Your task to perform on an android device: What's the latest news in space technology? Image 0: 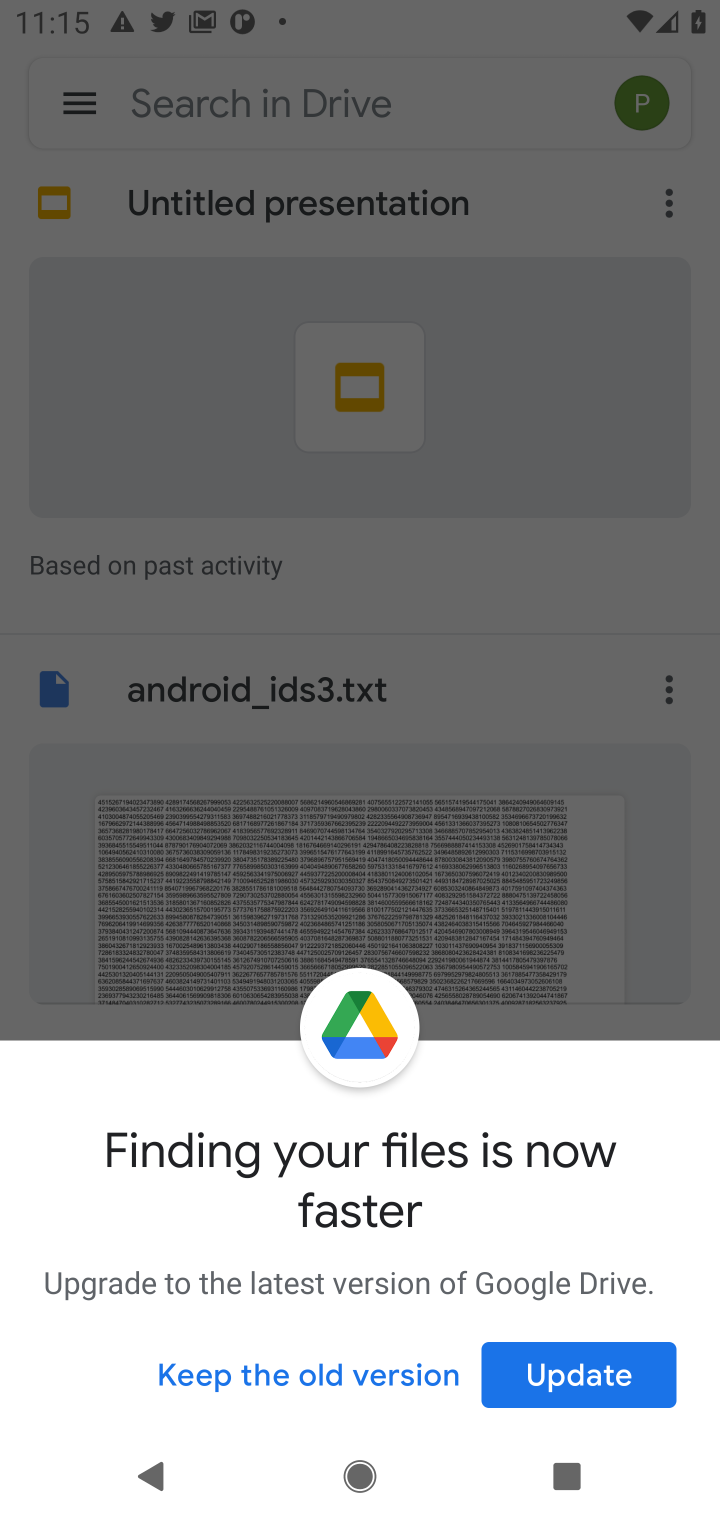
Step 0: press back button
Your task to perform on an android device: What's the latest news in space technology? Image 1: 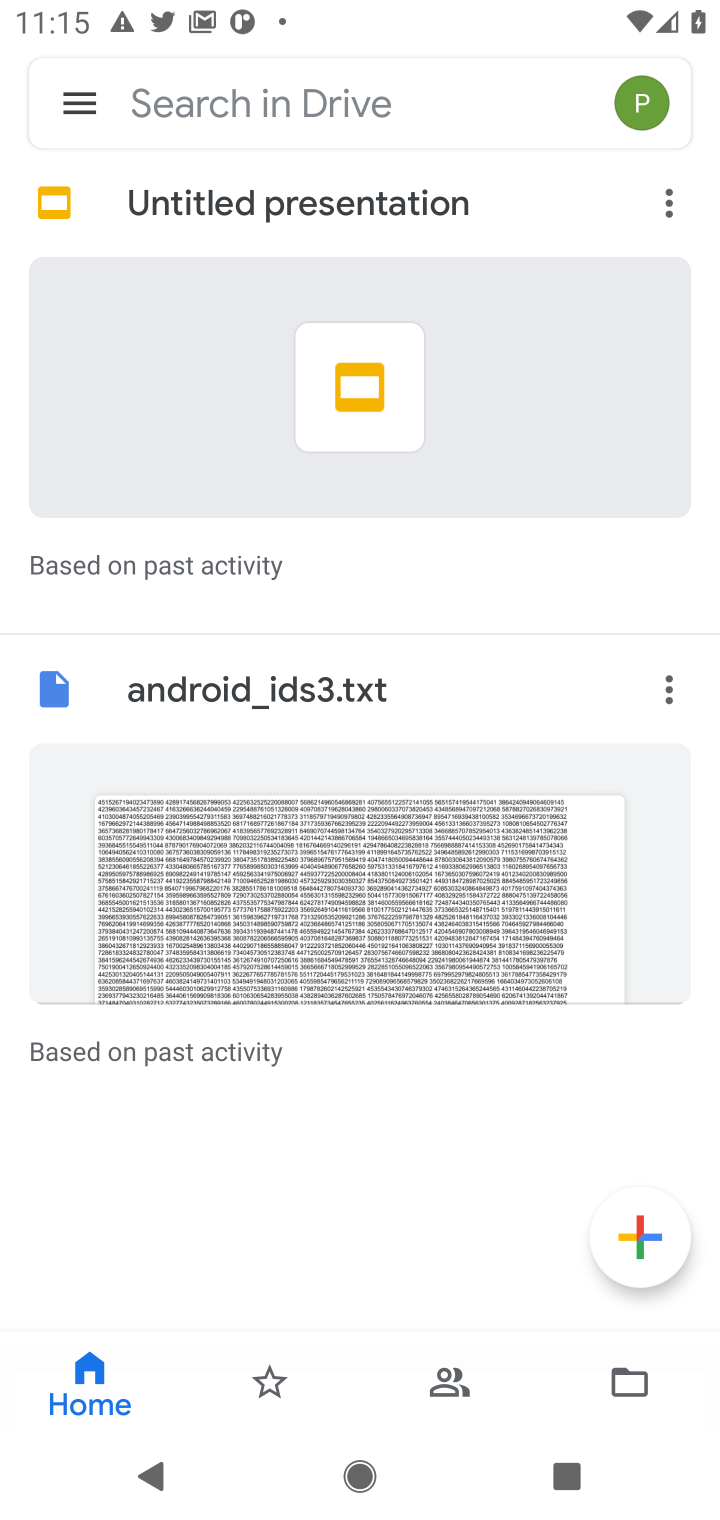
Step 1: press home button
Your task to perform on an android device: What's the latest news in space technology? Image 2: 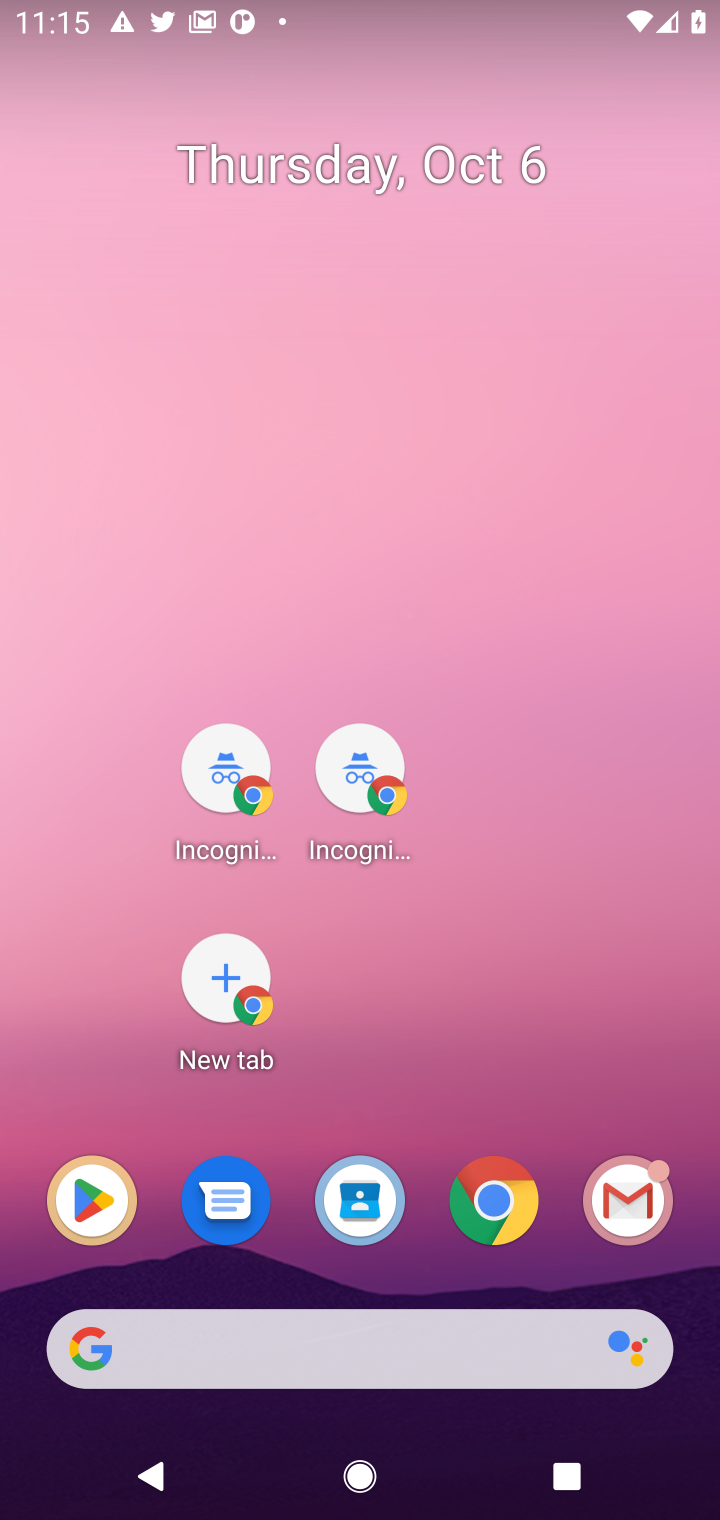
Step 2: click (473, 1206)
Your task to perform on an android device: What's the latest news in space technology? Image 3: 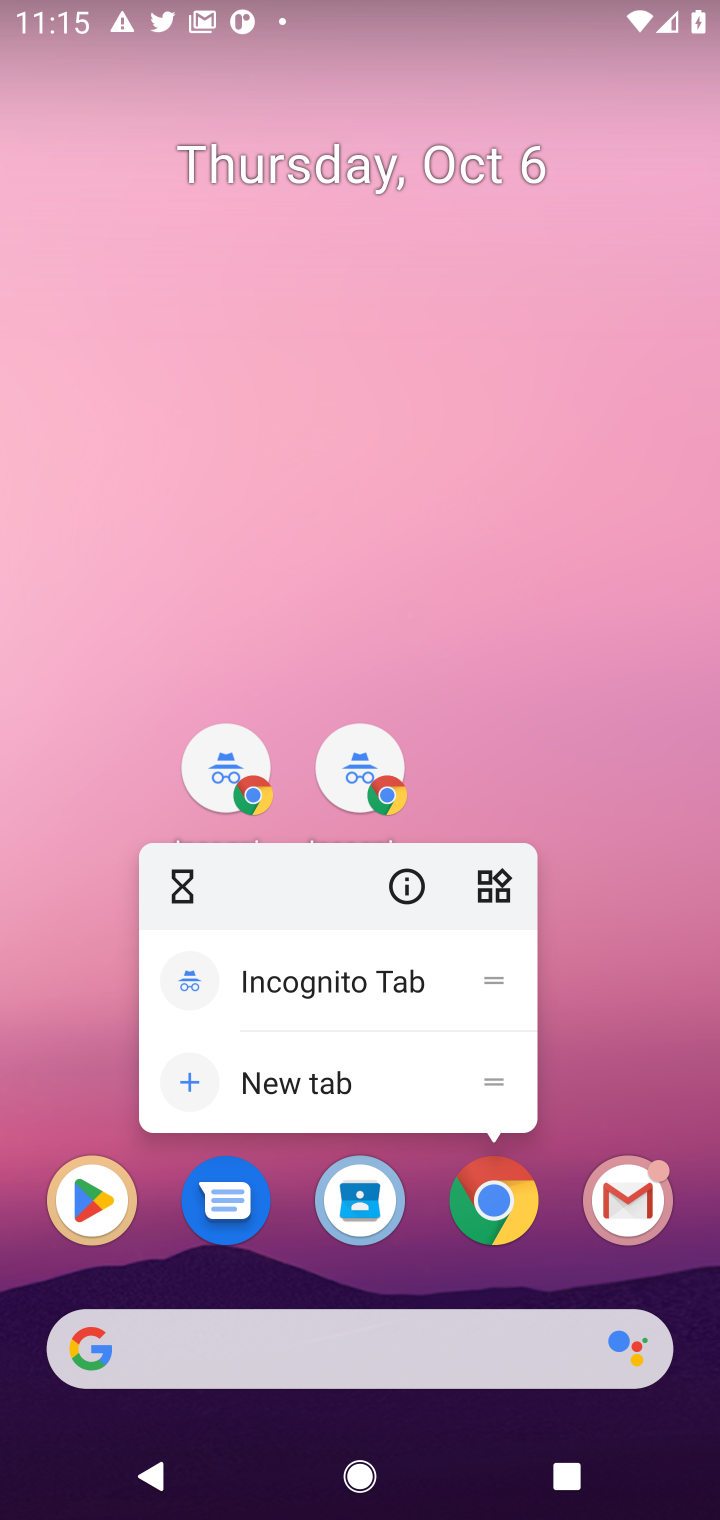
Step 3: press home button
Your task to perform on an android device: What's the latest news in space technology? Image 4: 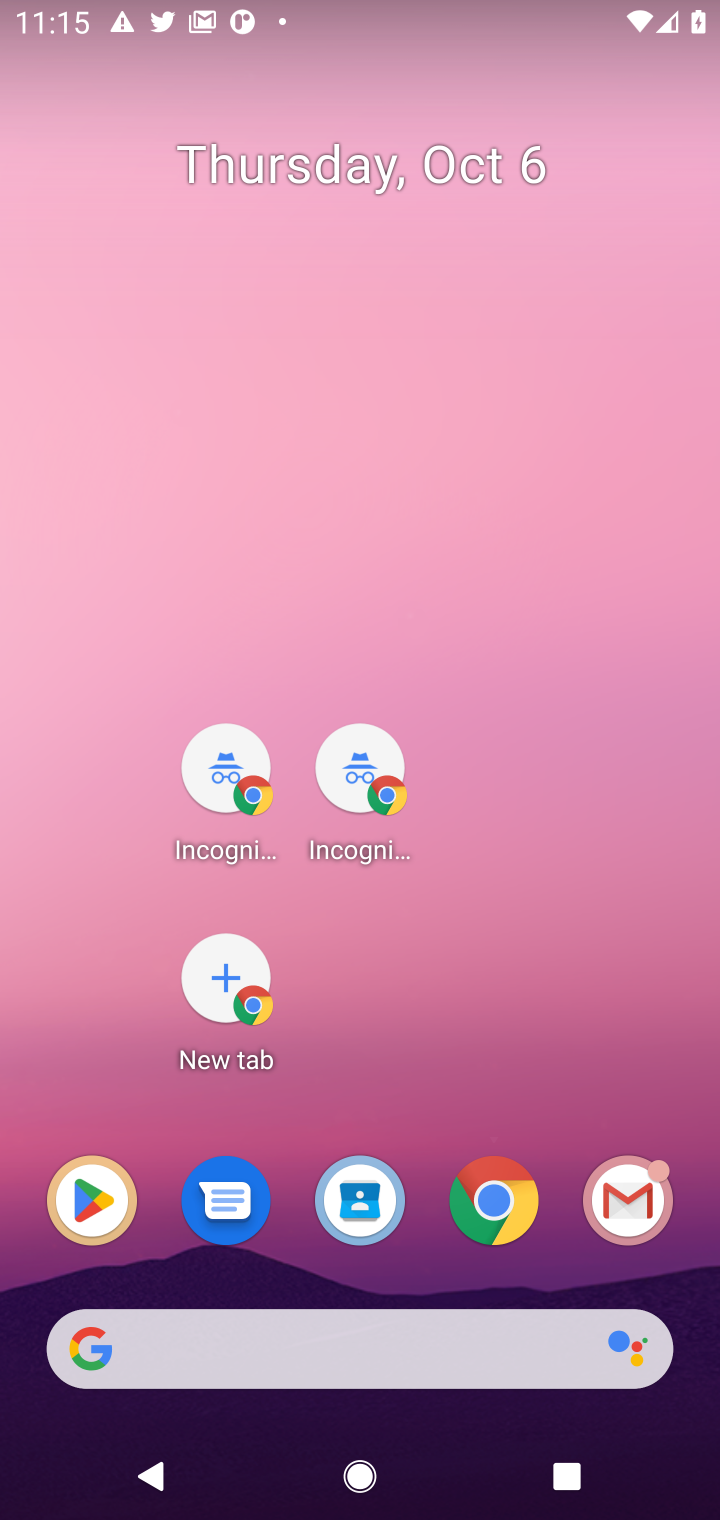
Step 4: press back button
Your task to perform on an android device: What's the latest news in space technology? Image 5: 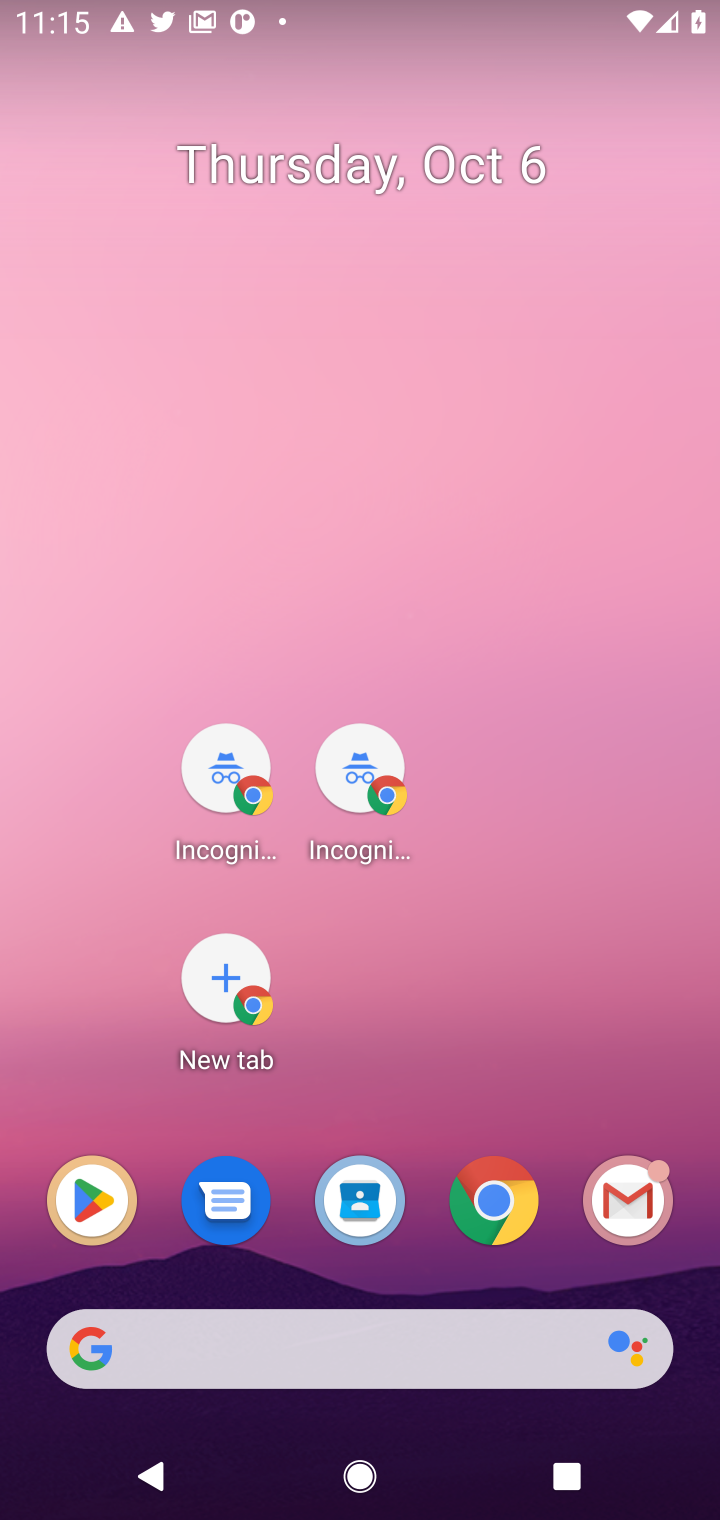
Step 5: press home button
Your task to perform on an android device: What's the latest news in space technology? Image 6: 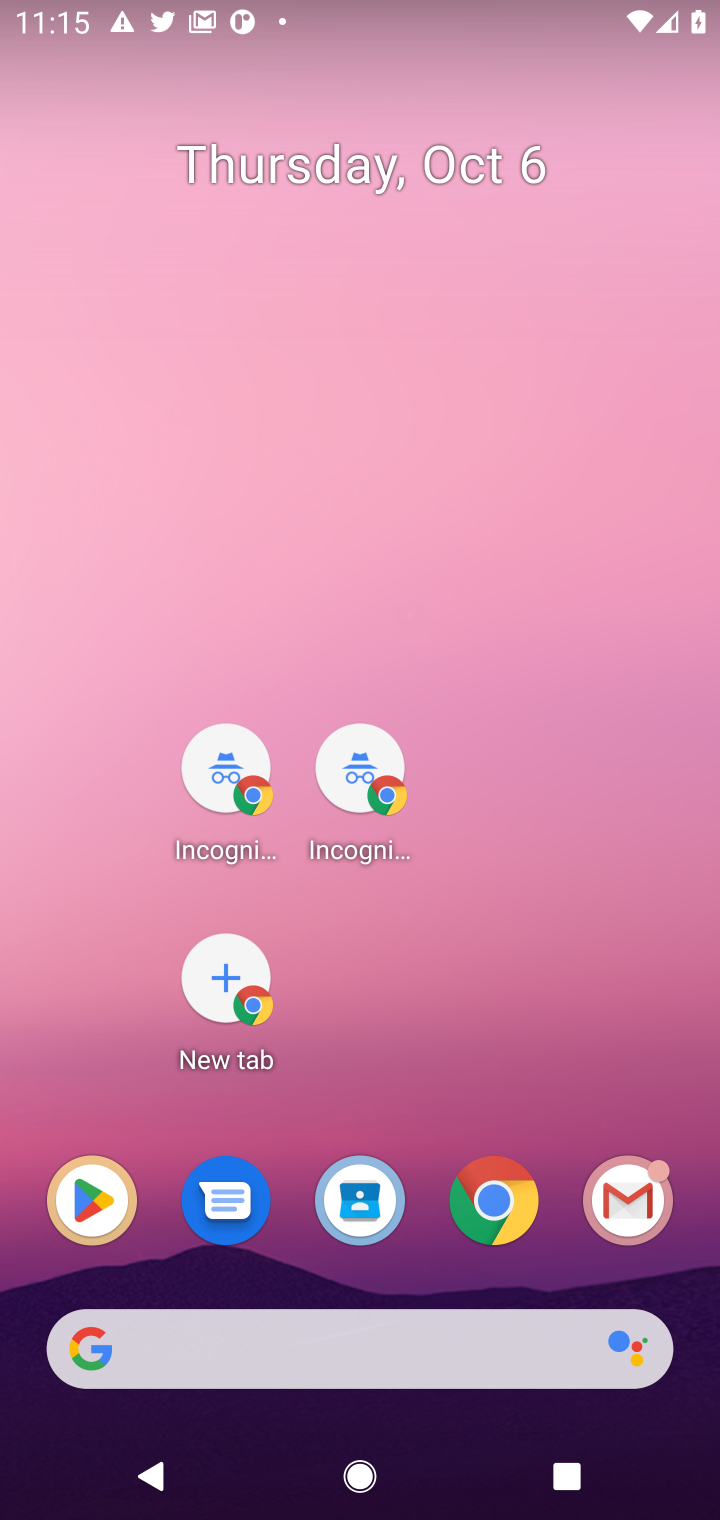
Step 6: click (508, 1221)
Your task to perform on an android device: What's the latest news in space technology? Image 7: 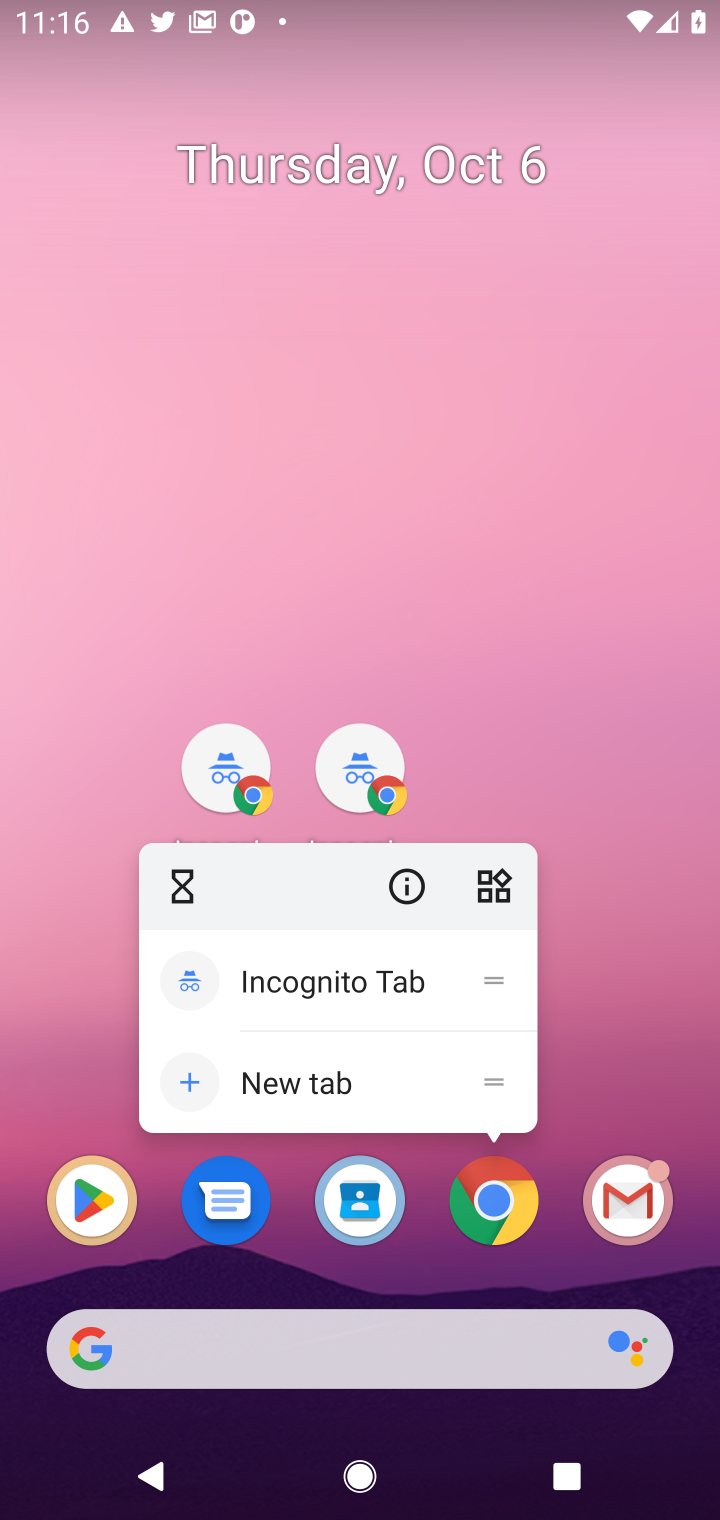
Step 7: click (506, 1215)
Your task to perform on an android device: What's the latest news in space technology? Image 8: 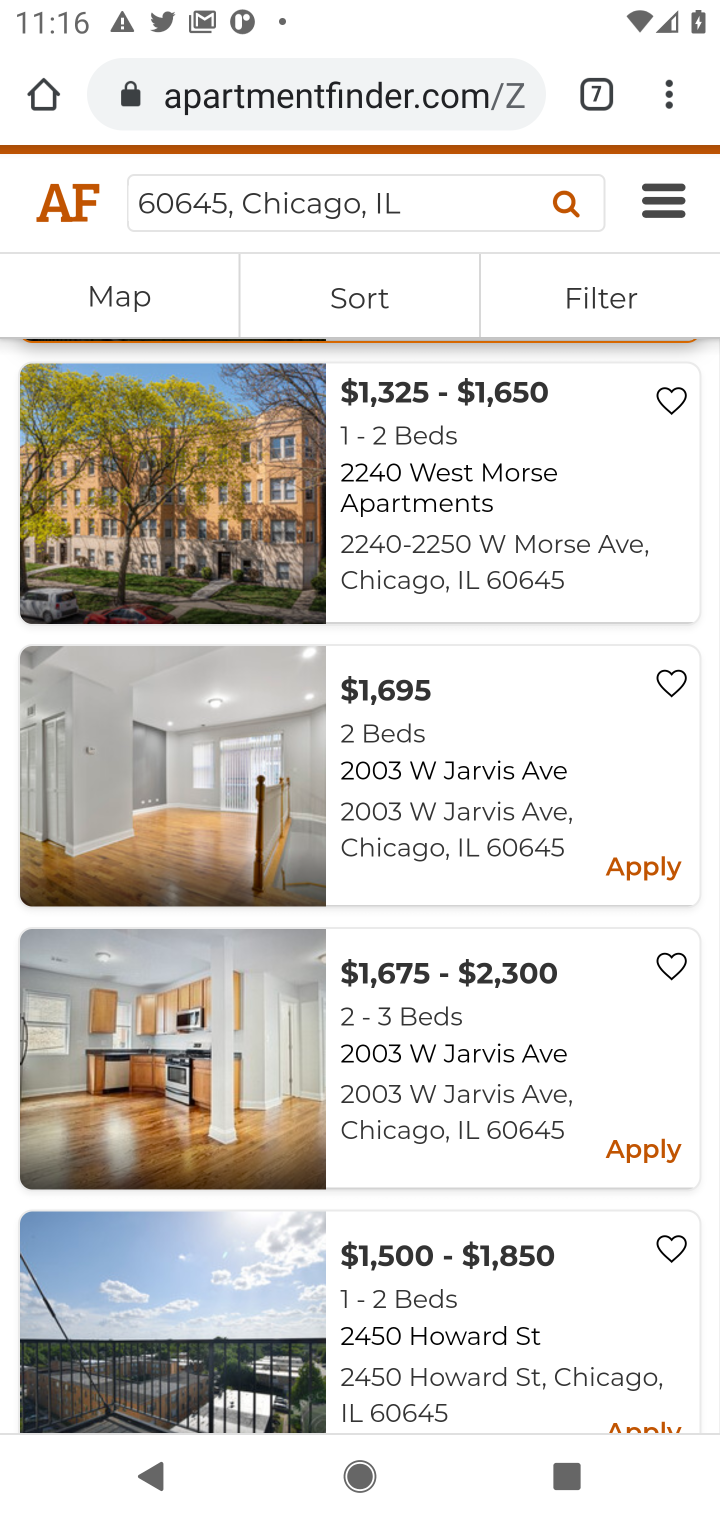
Step 8: click (410, 101)
Your task to perform on an android device: What's the latest news in space technology? Image 9: 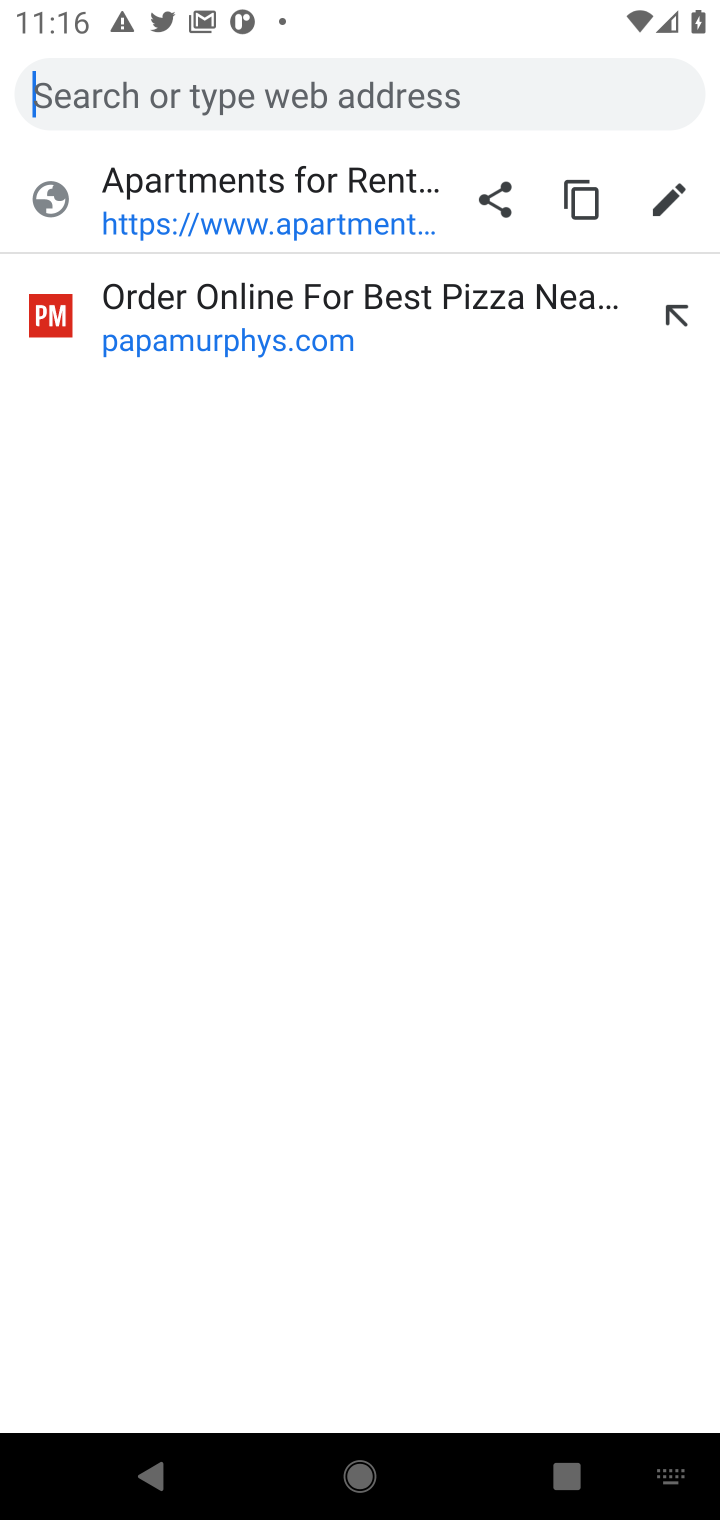
Step 9: type "latest news in space technology "
Your task to perform on an android device: What's the latest news in space technology? Image 10: 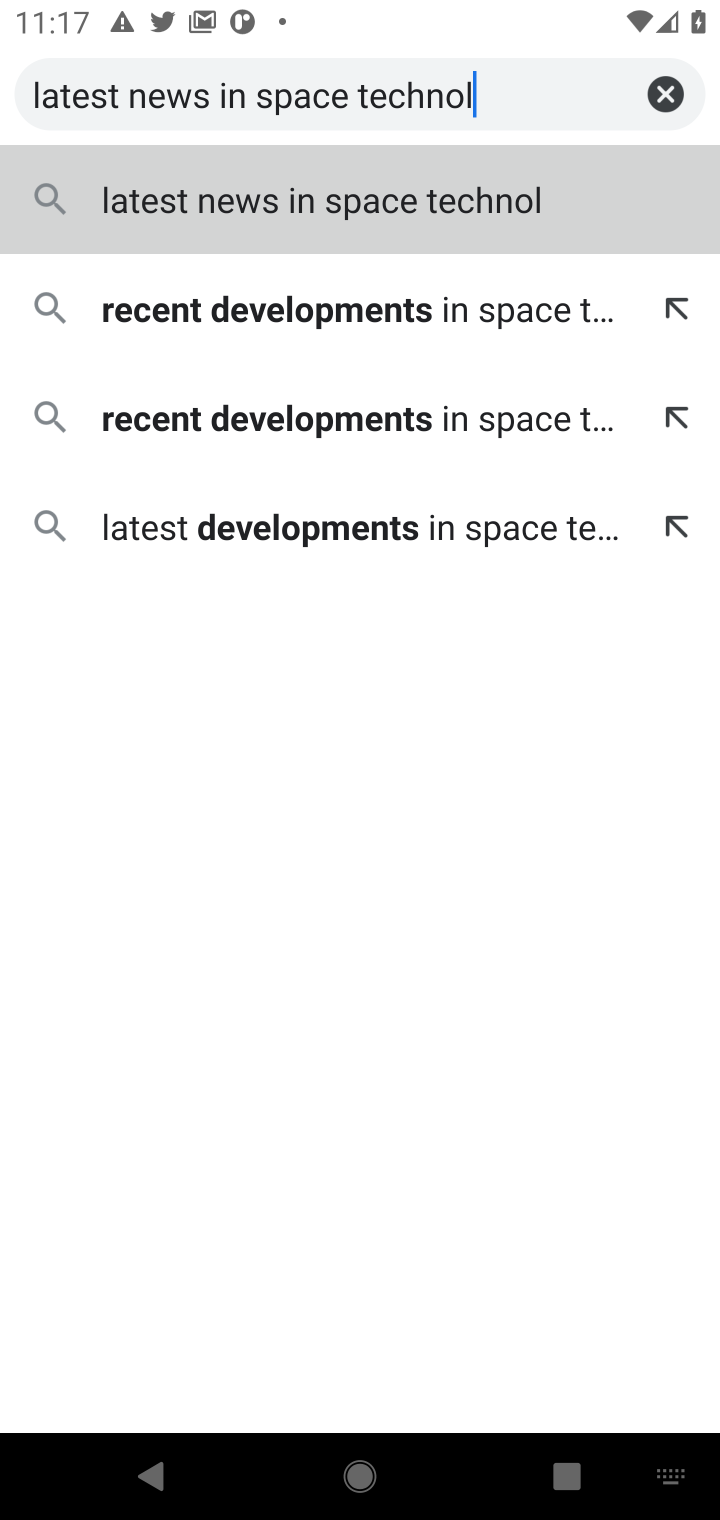
Step 10: click (379, 303)
Your task to perform on an android device: What's the latest news in space technology? Image 11: 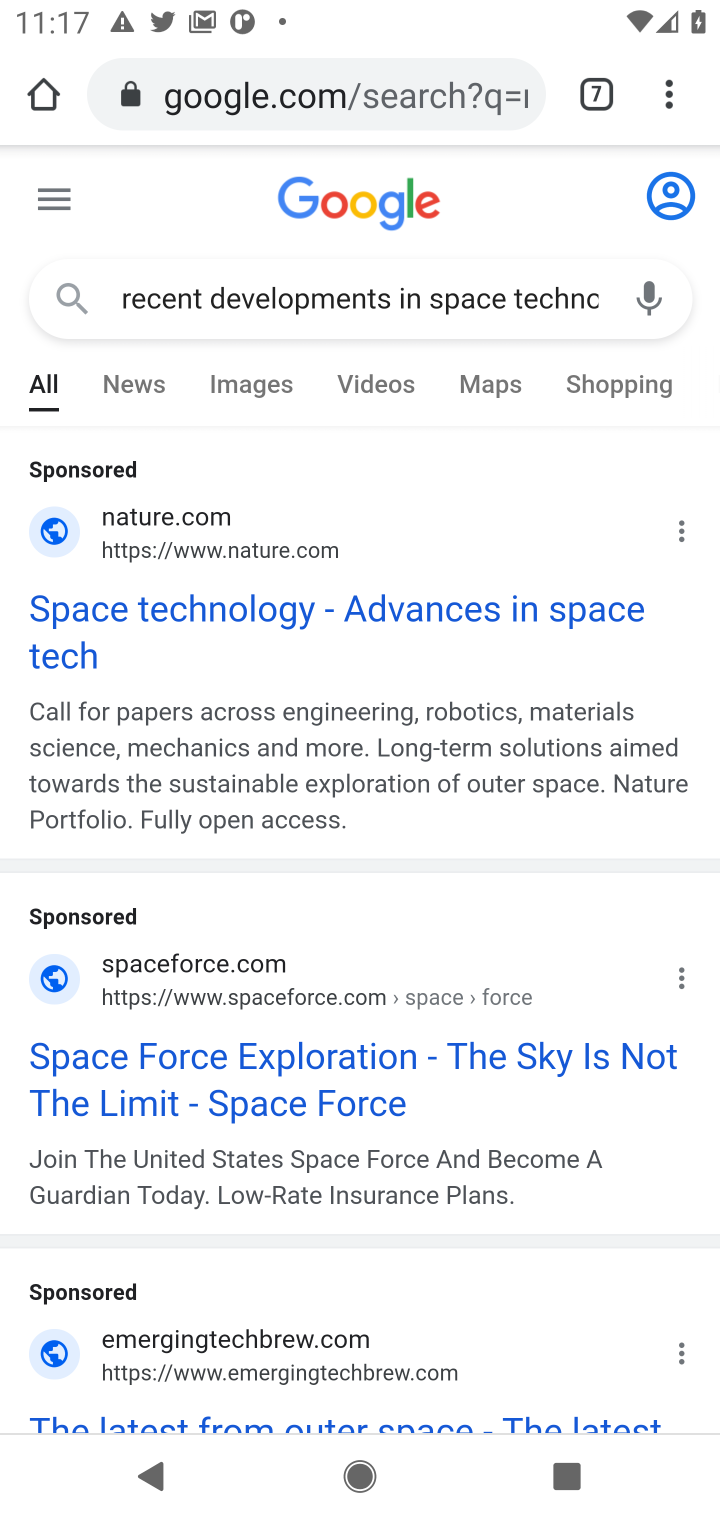
Step 11: click (233, 611)
Your task to perform on an android device: What's the latest news in space technology? Image 12: 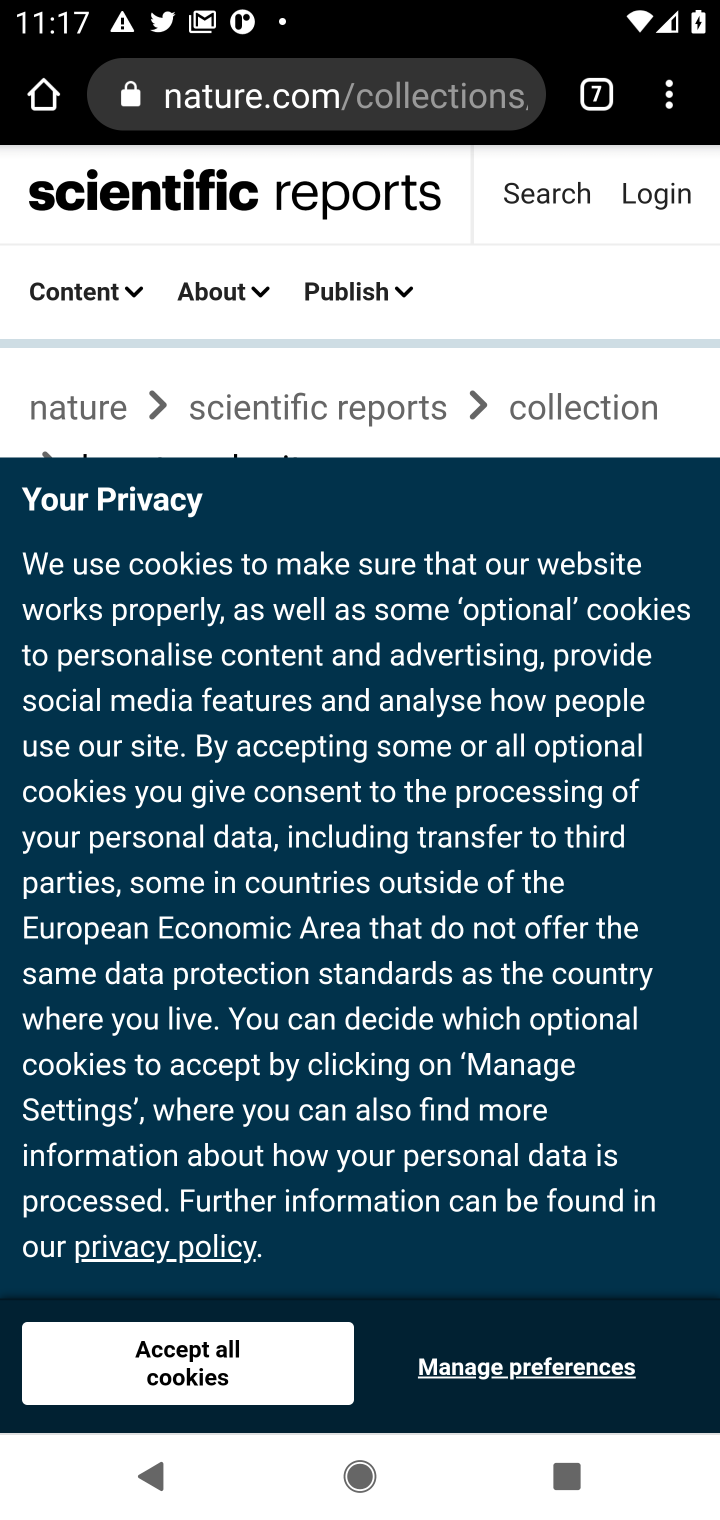
Step 12: click (224, 1361)
Your task to perform on an android device: What's the latest news in space technology? Image 13: 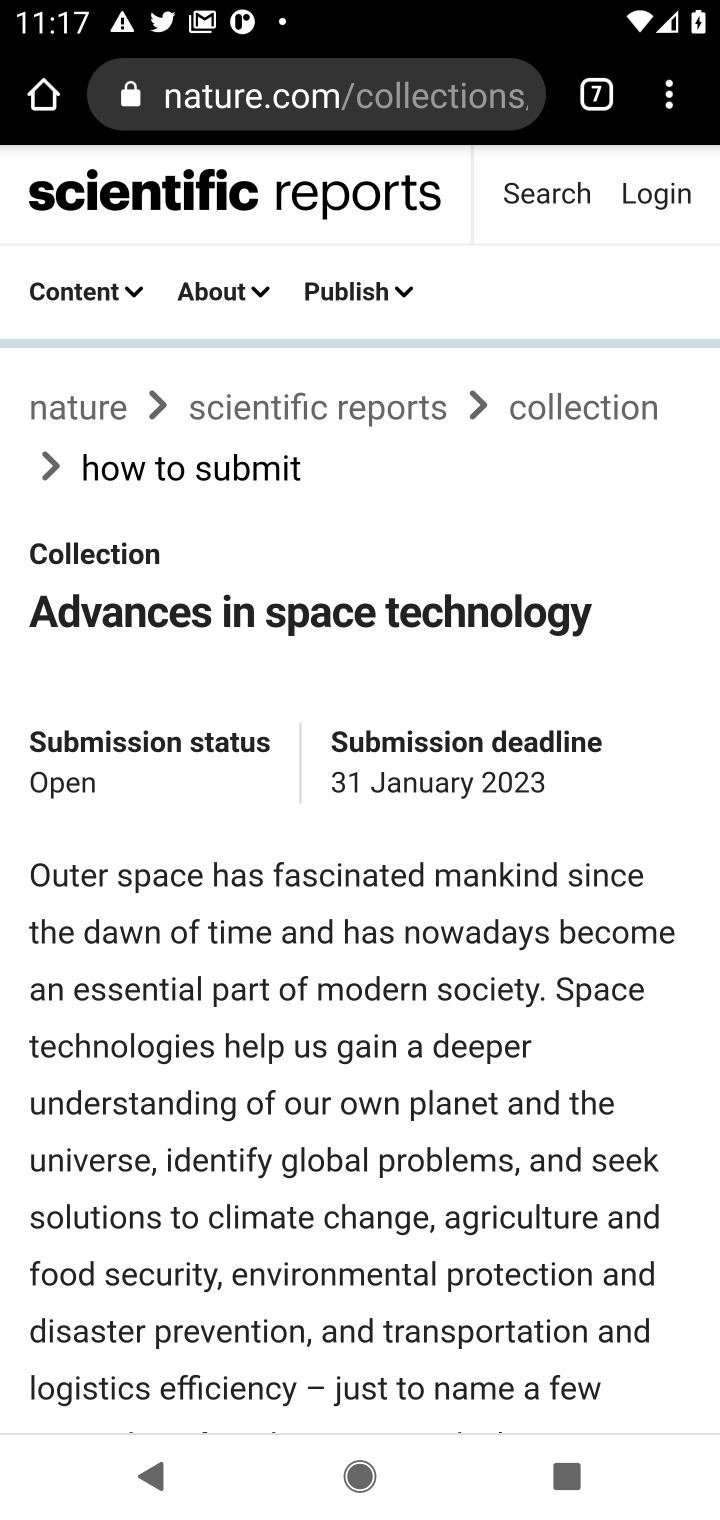
Step 13: task complete